Your task to perform on an android device: clear history in the chrome app Image 0: 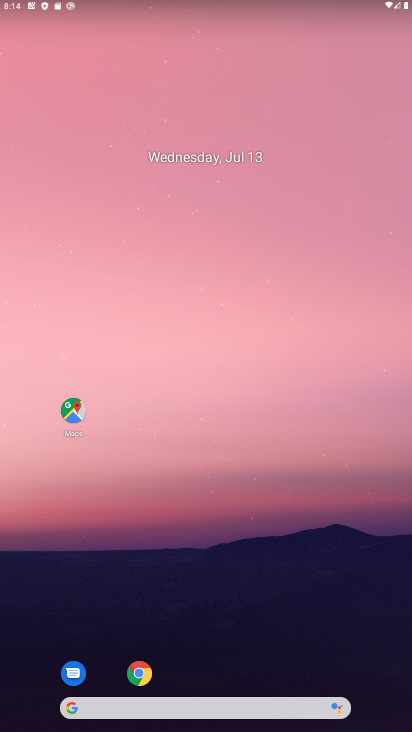
Step 0: drag from (307, 628) to (218, 40)
Your task to perform on an android device: clear history in the chrome app Image 1: 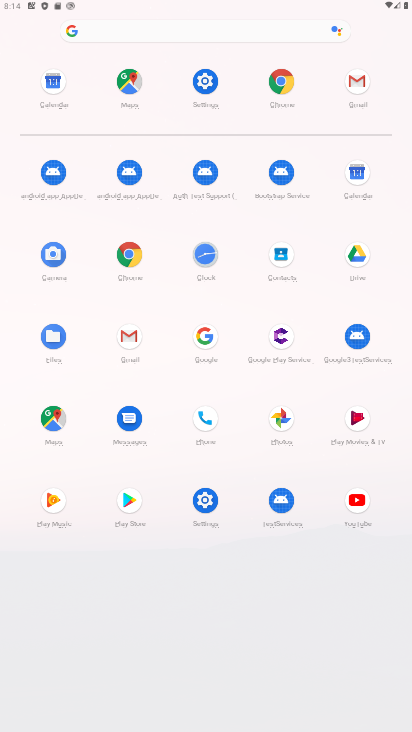
Step 1: click (131, 253)
Your task to perform on an android device: clear history in the chrome app Image 2: 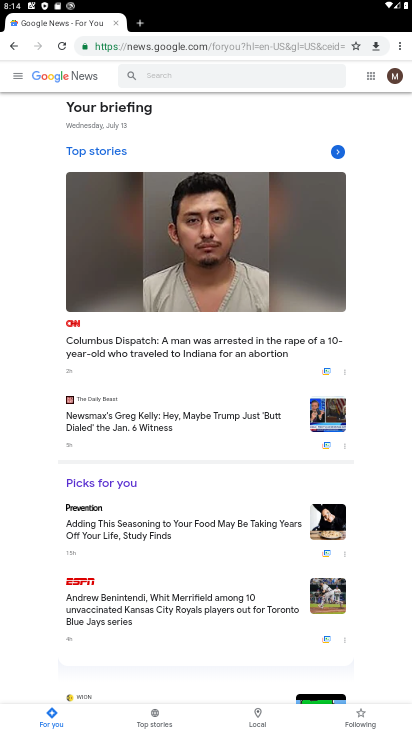
Step 2: drag from (399, 42) to (312, 184)
Your task to perform on an android device: clear history in the chrome app Image 3: 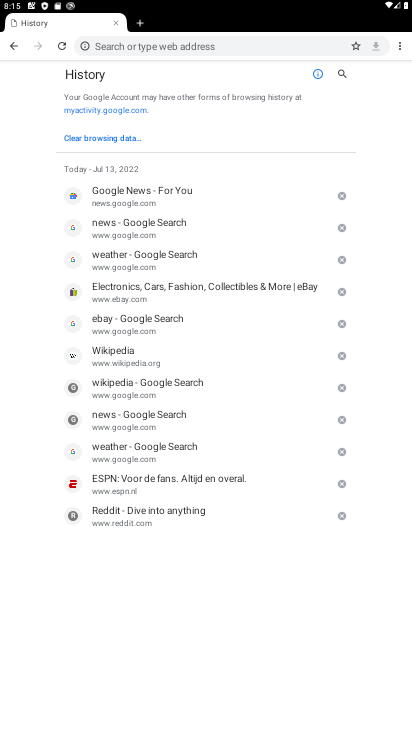
Step 3: click (109, 141)
Your task to perform on an android device: clear history in the chrome app Image 4: 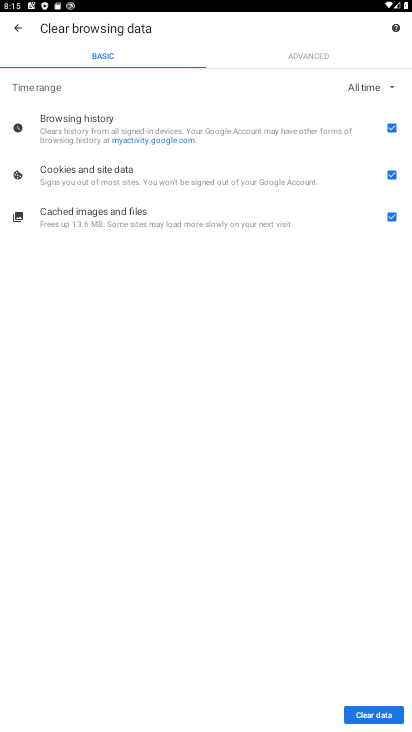
Step 4: click (378, 718)
Your task to perform on an android device: clear history in the chrome app Image 5: 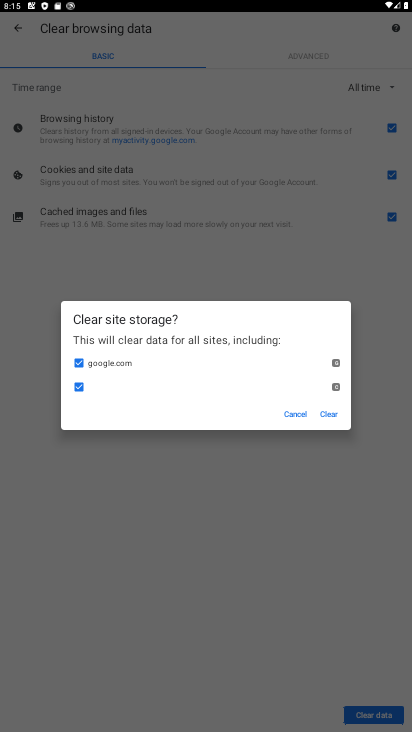
Step 5: click (337, 412)
Your task to perform on an android device: clear history in the chrome app Image 6: 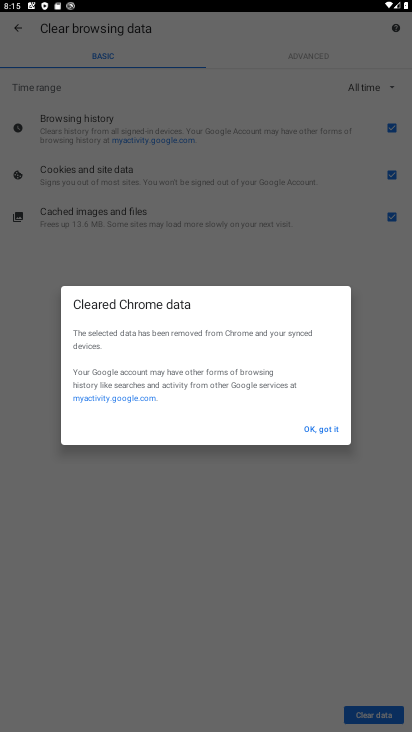
Step 6: click (325, 425)
Your task to perform on an android device: clear history in the chrome app Image 7: 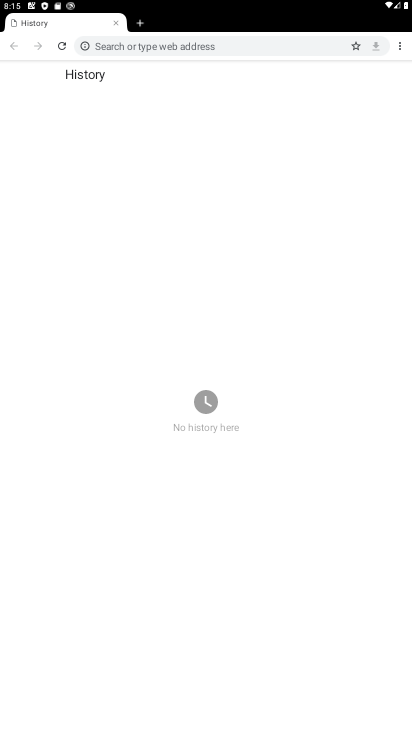
Step 7: task complete